Your task to perform on an android device: Open the web browser Image 0: 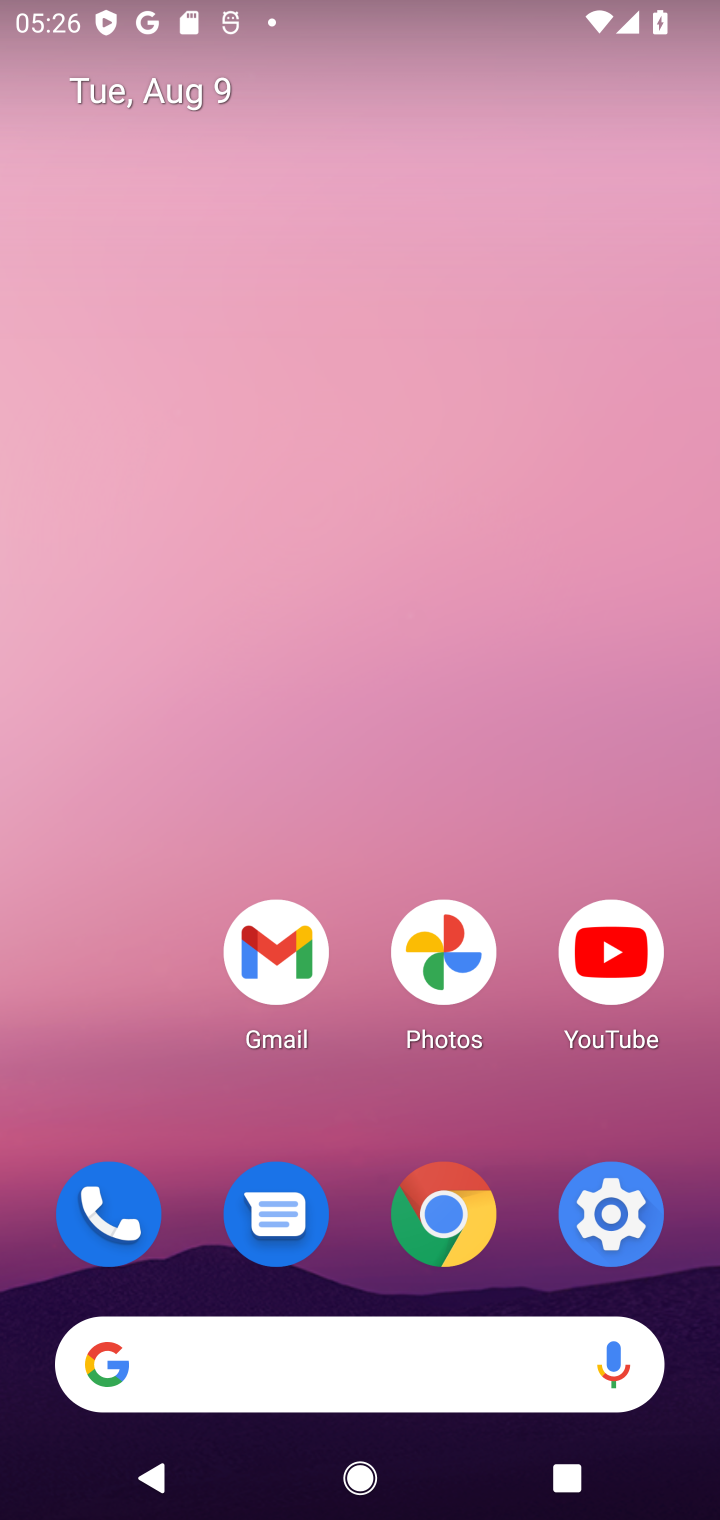
Step 0: click (434, 1203)
Your task to perform on an android device: Open the web browser Image 1: 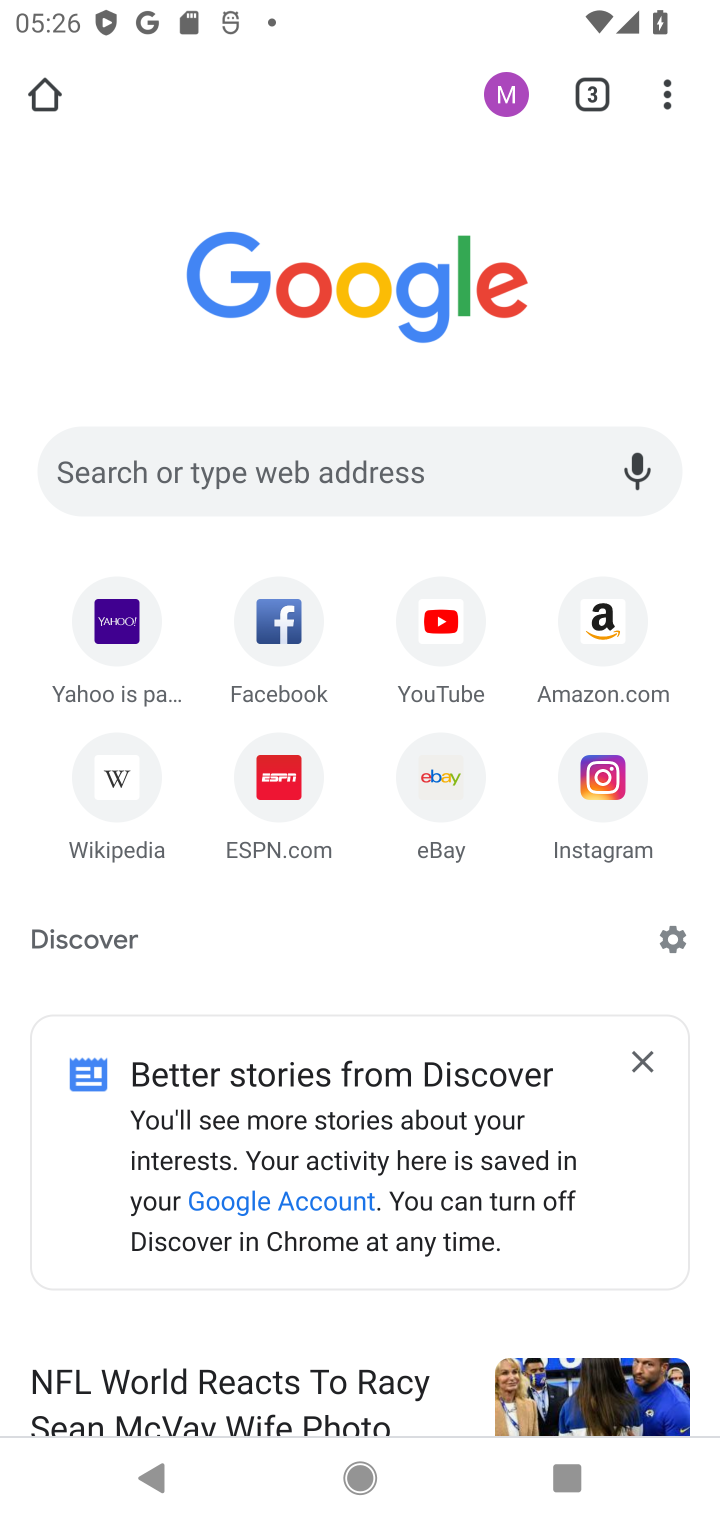
Step 1: click (270, 461)
Your task to perform on an android device: Open the web browser Image 2: 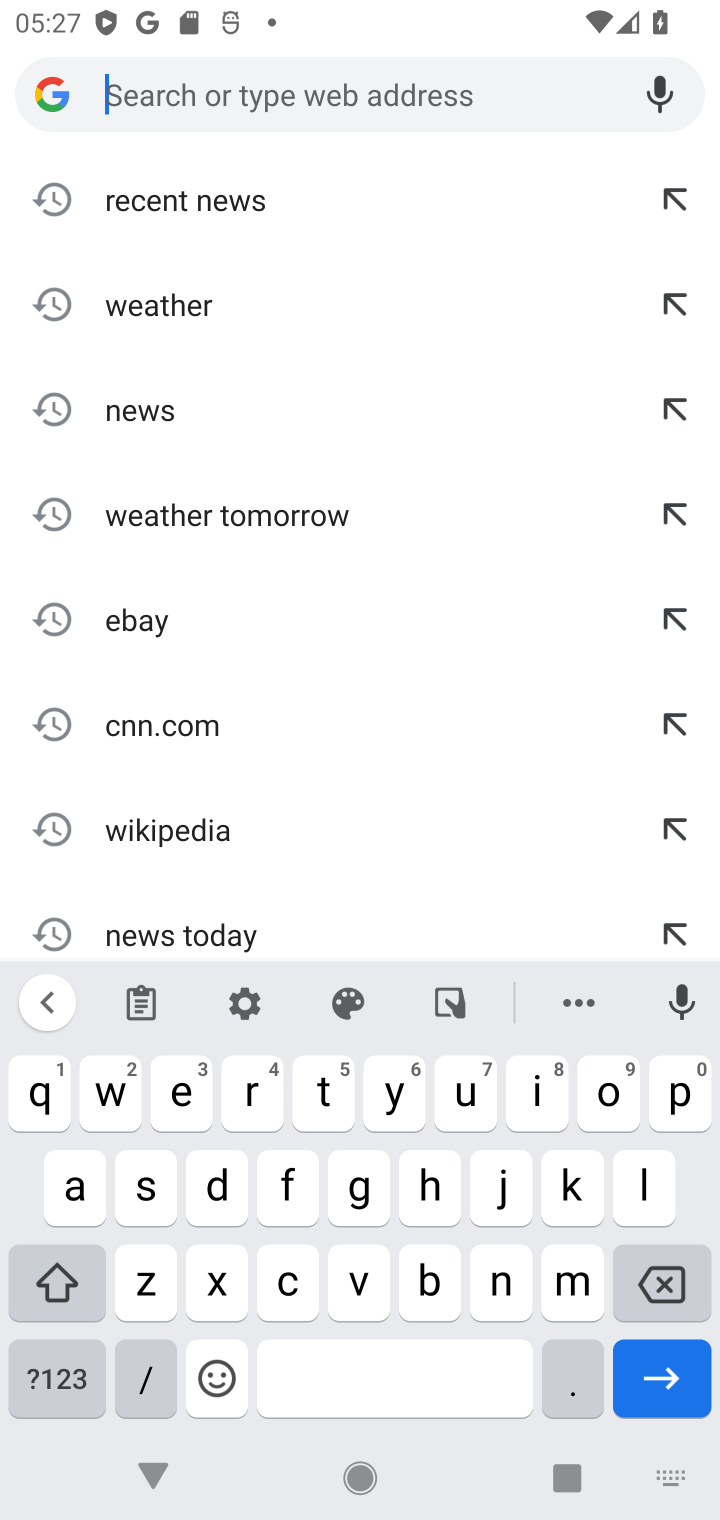
Step 2: task complete